Your task to perform on an android device: Open Chrome and go to settings Image 0: 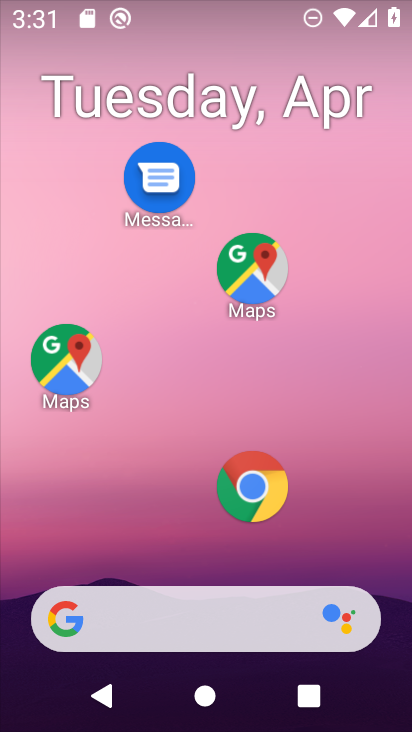
Step 0: click (257, 496)
Your task to perform on an android device: Open Chrome and go to settings Image 1: 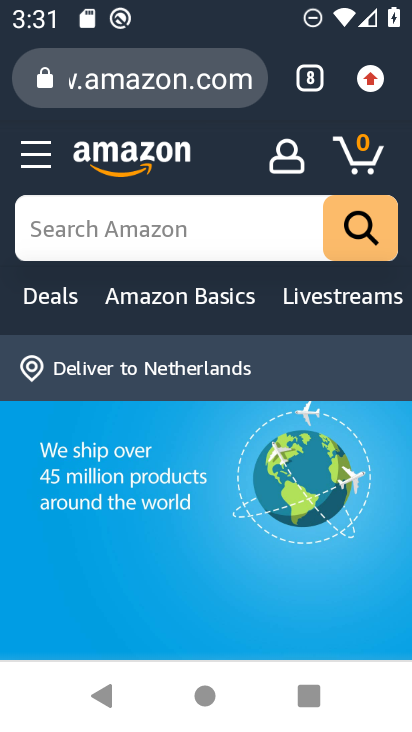
Step 1: click (378, 96)
Your task to perform on an android device: Open Chrome and go to settings Image 2: 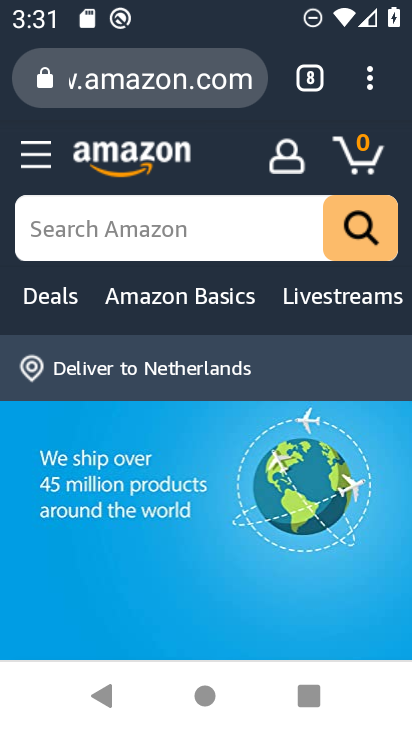
Step 2: click (373, 83)
Your task to perform on an android device: Open Chrome and go to settings Image 3: 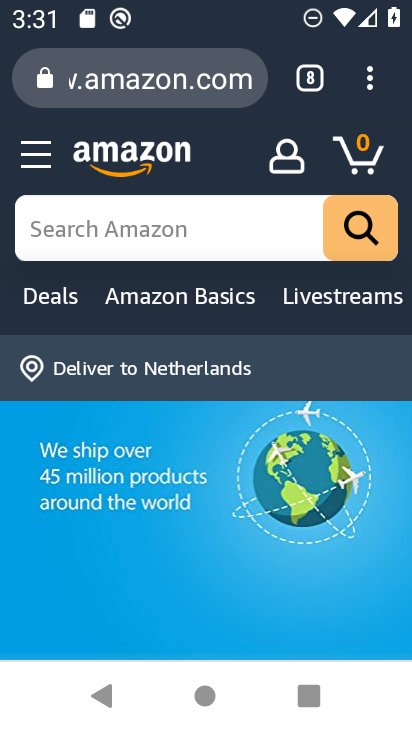
Step 3: click (368, 86)
Your task to perform on an android device: Open Chrome and go to settings Image 4: 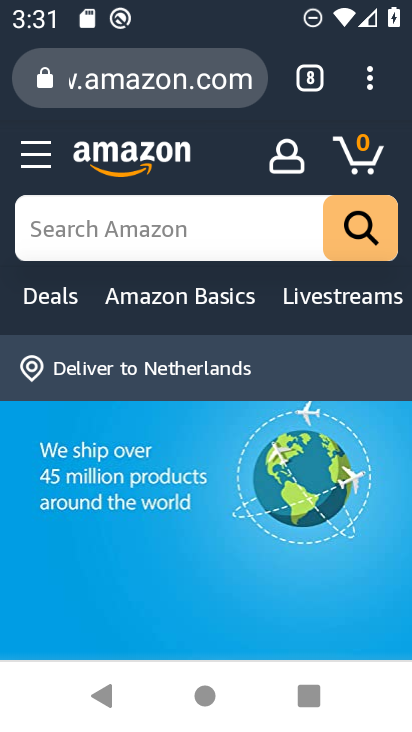
Step 4: click (368, 91)
Your task to perform on an android device: Open Chrome and go to settings Image 5: 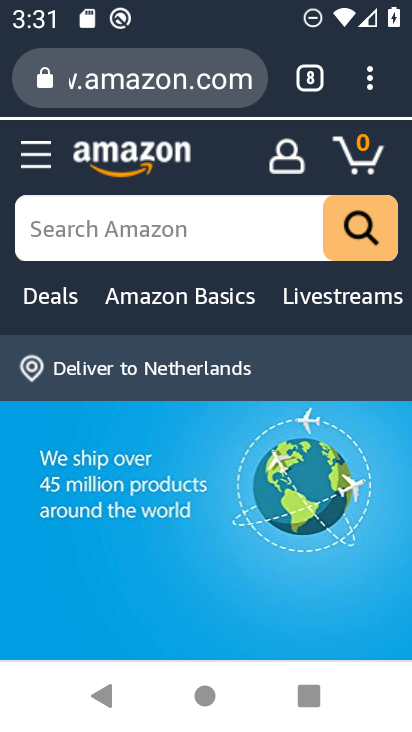
Step 5: click (374, 87)
Your task to perform on an android device: Open Chrome and go to settings Image 6: 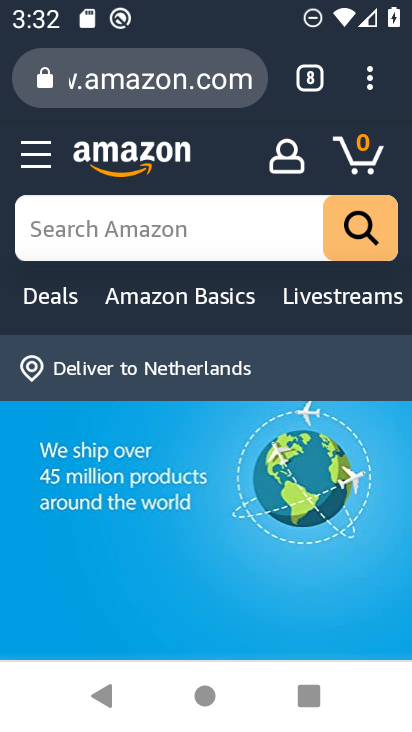
Step 6: click (372, 76)
Your task to perform on an android device: Open Chrome and go to settings Image 7: 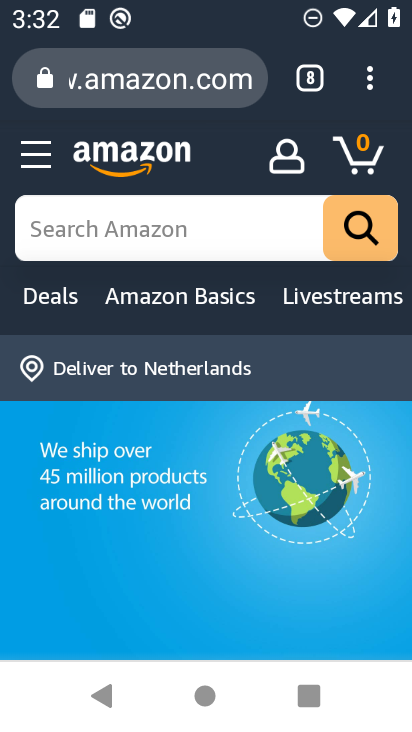
Step 7: click (376, 85)
Your task to perform on an android device: Open Chrome and go to settings Image 8: 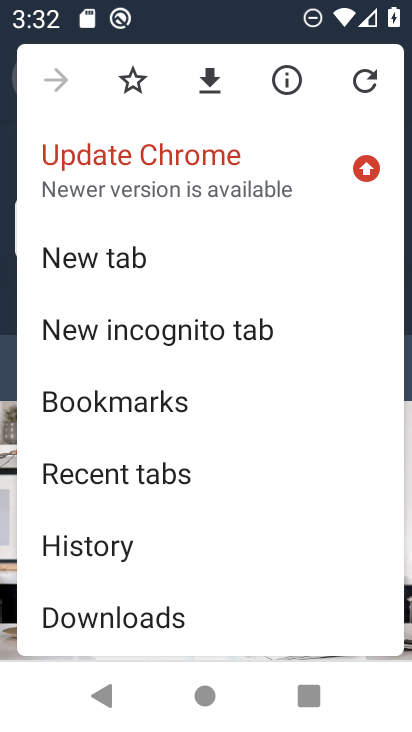
Step 8: drag from (196, 509) to (237, 227)
Your task to perform on an android device: Open Chrome and go to settings Image 9: 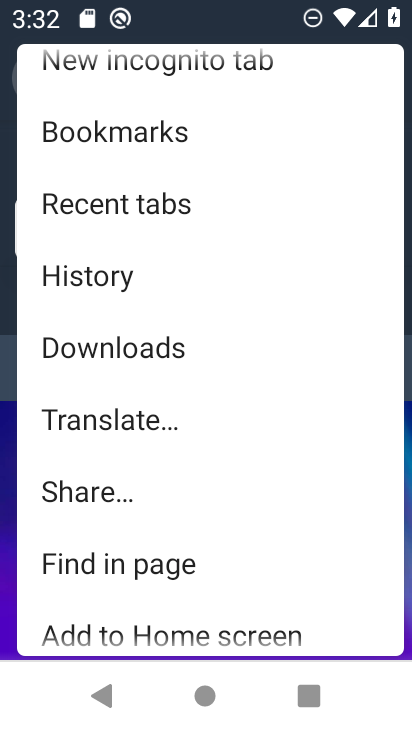
Step 9: drag from (187, 496) to (228, 228)
Your task to perform on an android device: Open Chrome and go to settings Image 10: 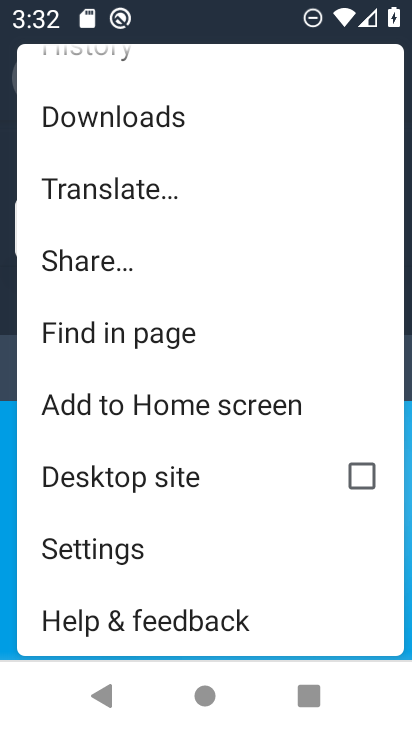
Step 10: click (150, 563)
Your task to perform on an android device: Open Chrome and go to settings Image 11: 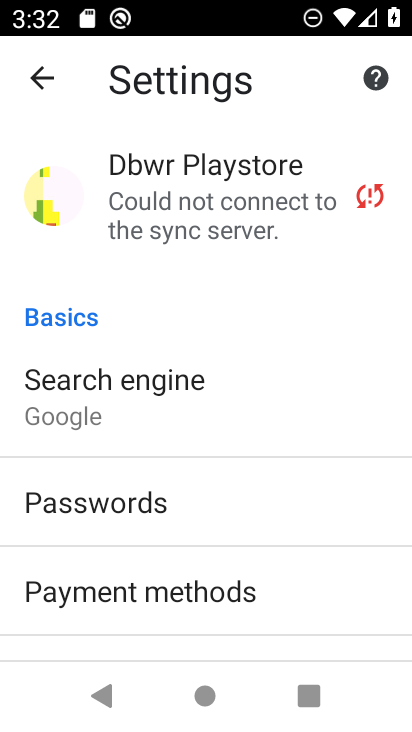
Step 11: drag from (272, 552) to (339, 268)
Your task to perform on an android device: Open Chrome and go to settings Image 12: 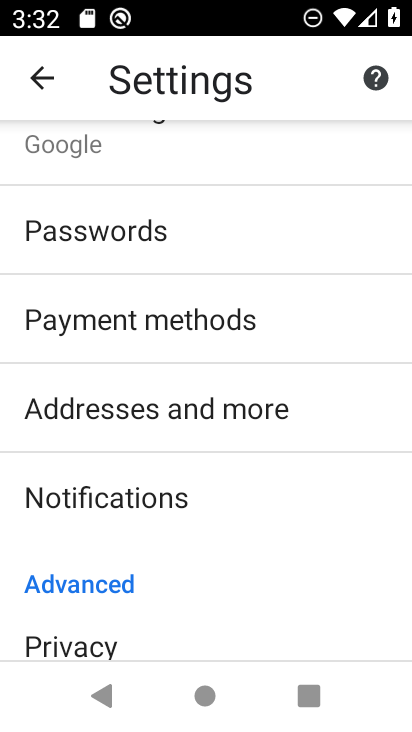
Step 12: drag from (244, 541) to (304, 241)
Your task to perform on an android device: Open Chrome and go to settings Image 13: 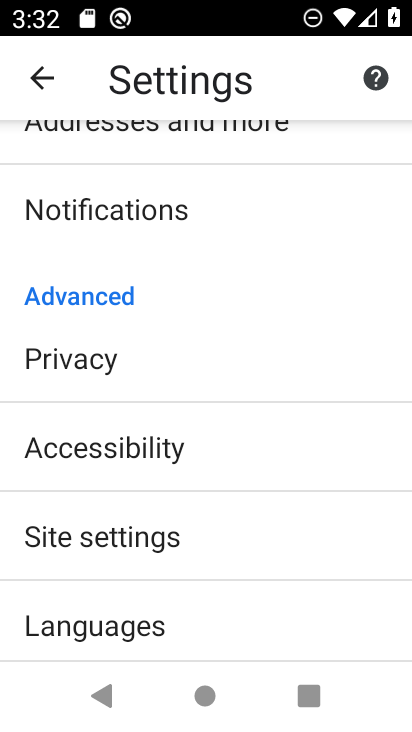
Step 13: drag from (204, 548) to (267, 317)
Your task to perform on an android device: Open Chrome and go to settings Image 14: 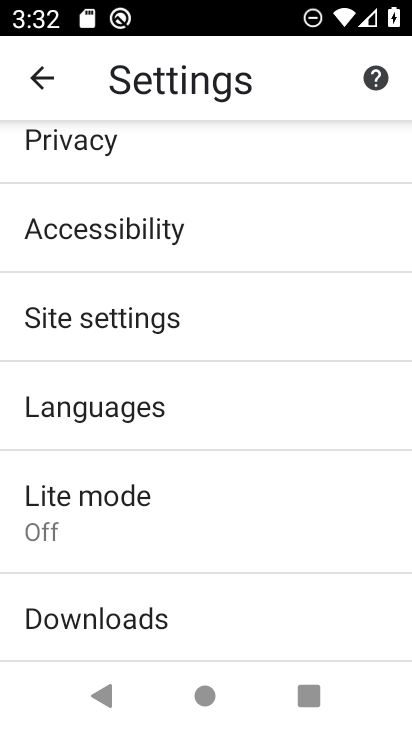
Step 14: drag from (176, 600) to (274, 369)
Your task to perform on an android device: Open Chrome and go to settings Image 15: 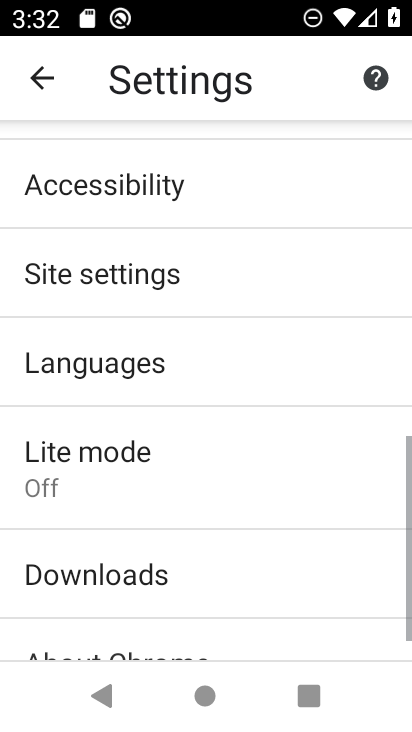
Step 15: drag from (223, 500) to (270, 319)
Your task to perform on an android device: Open Chrome and go to settings Image 16: 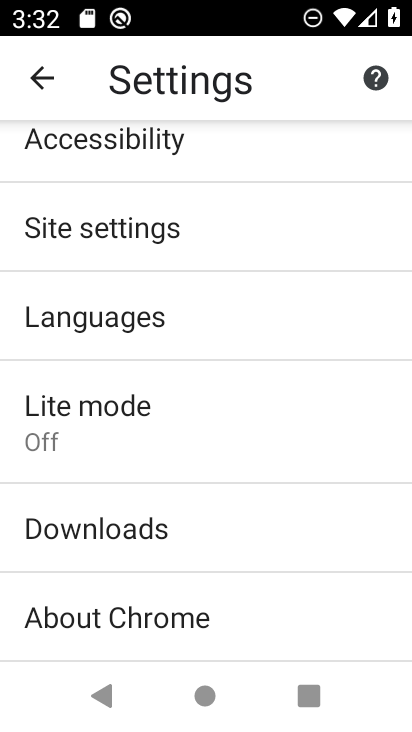
Step 16: drag from (211, 575) to (302, 241)
Your task to perform on an android device: Open Chrome and go to settings Image 17: 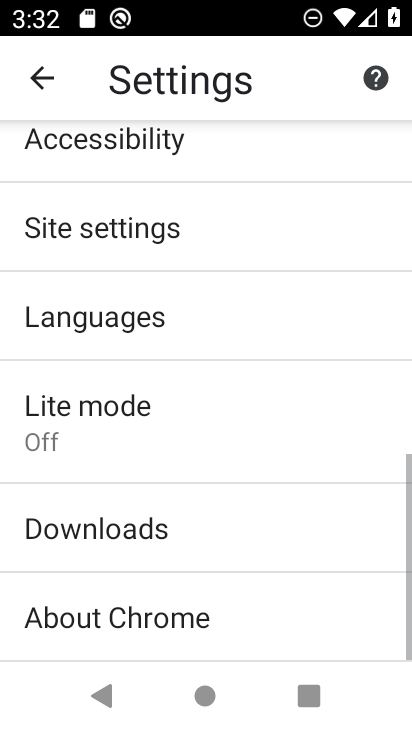
Step 17: drag from (250, 303) to (280, 503)
Your task to perform on an android device: Open Chrome and go to settings Image 18: 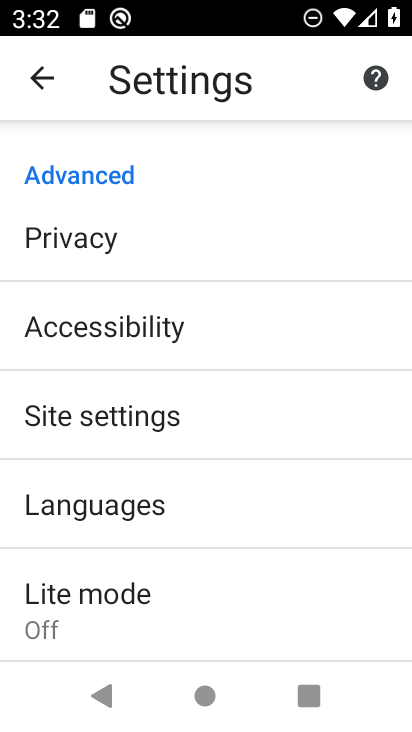
Step 18: click (228, 433)
Your task to perform on an android device: Open Chrome and go to settings Image 19: 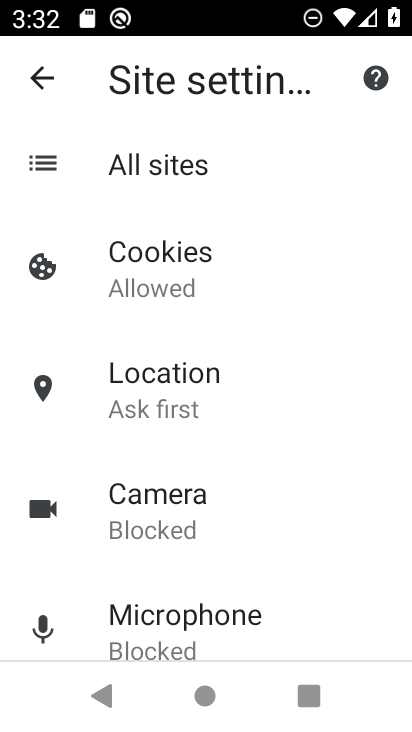
Step 19: click (30, 75)
Your task to perform on an android device: Open Chrome and go to settings Image 20: 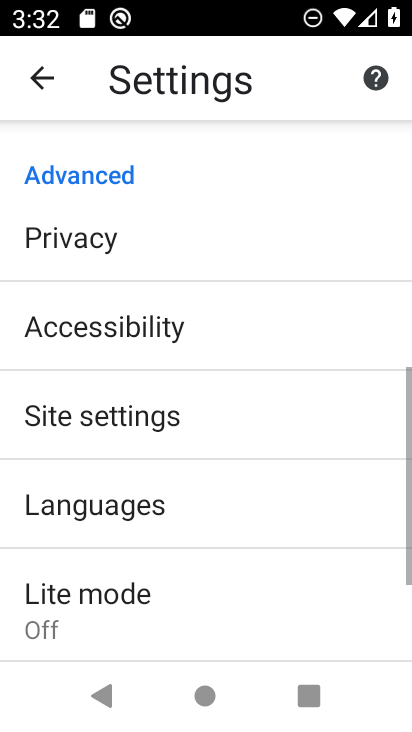
Step 20: task complete